Your task to perform on an android device: turn pop-ups off in chrome Image 0: 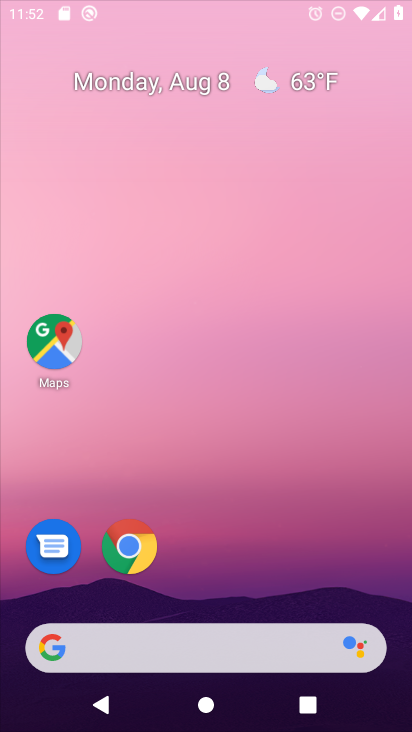
Step 0: press home button
Your task to perform on an android device: turn pop-ups off in chrome Image 1: 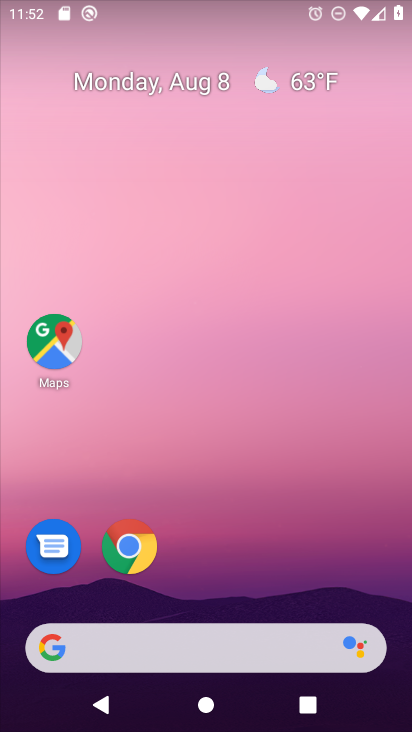
Step 1: drag from (228, 592) to (268, 107)
Your task to perform on an android device: turn pop-ups off in chrome Image 2: 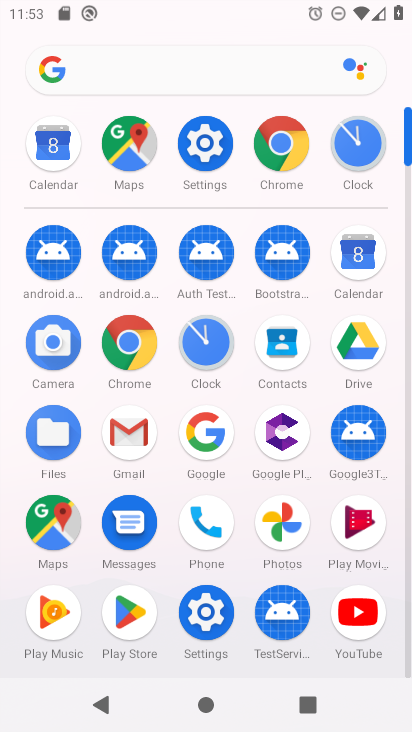
Step 2: click (279, 139)
Your task to perform on an android device: turn pop-ups off in chrome Image 3: 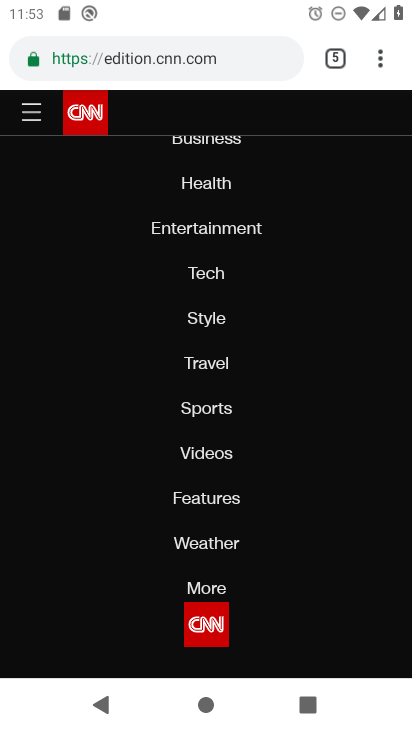
Step 3: click (375, 58)
Your task to perform on an android device: turn pop-ups off in chrome Image 4: 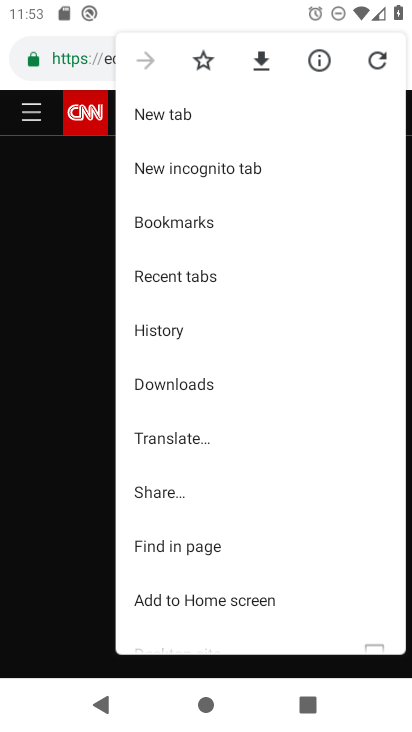
Step 4: drag from (237, 598) to (249, 254)
Your task to perform on an android device: turn pop-ups off in chrome Image 5: 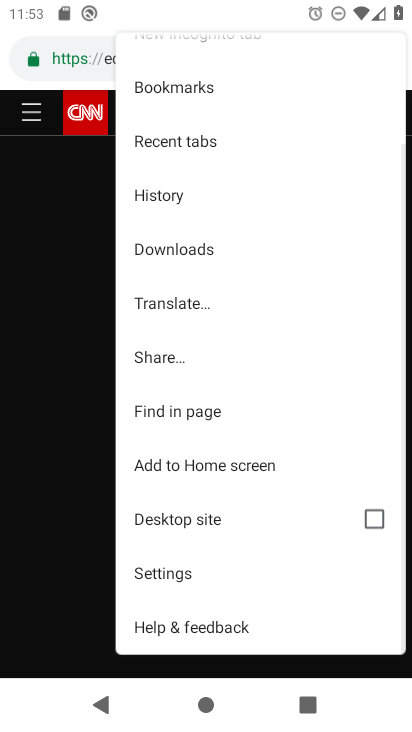
Step 5: click (196, 577)
Your task to perform on an android device: turn pop-ups off in chrome Image 6: 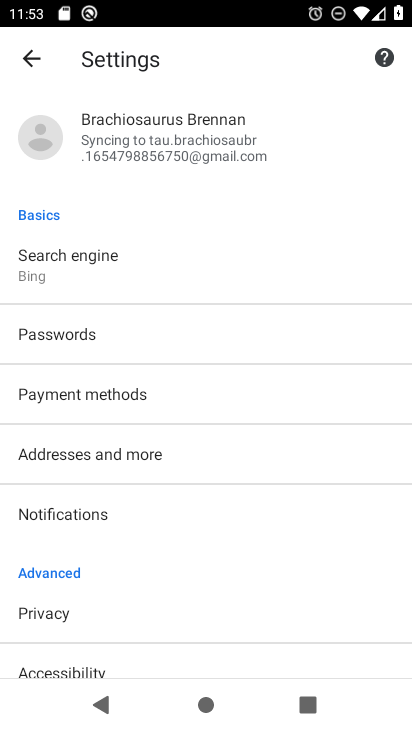
Step 6: drag from (153, 643) to (150, 225)
Your task to perform on an android device: turn pop-ups off in chrome Image 7: 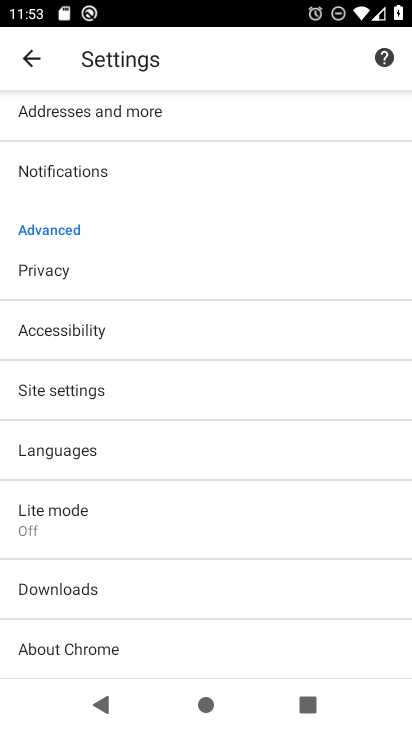
Step 7: click (125, 395)
Your task to perform on an android device: turn pop-ups off in chrome Image 8: 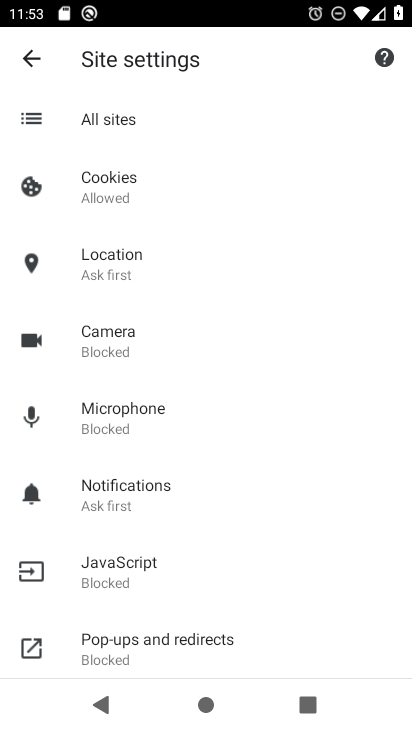
Step 8: click (190, 642)
Your task to perform on an android device: turn pop-ups off in chrome Image 9: 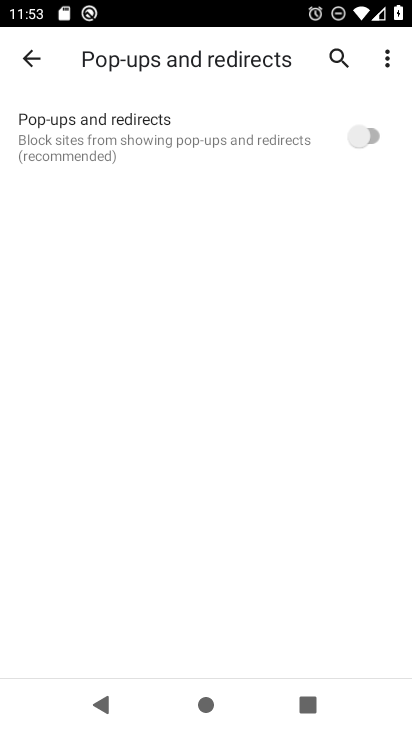
Step 9: task complete